Your task to perform on an android device: What's on my calendar tomorrow? Image 0: 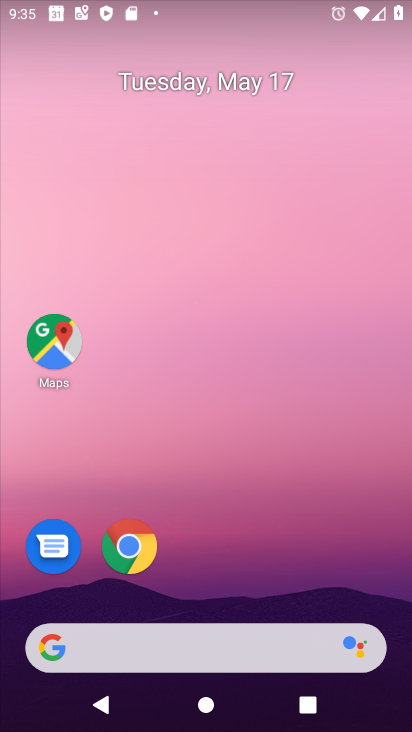
Step 0: drag from (231, 562) to (317, 285)
Your task to perform on an android device: What's on my calendar tomorrow? Image 1: 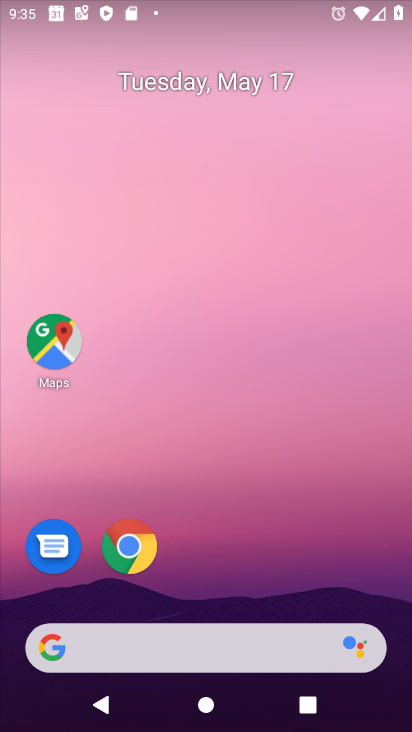
Step 1: drag from (206, 588) to (231, 182)
Your task to perform on an android device: What's on my calendar tomorrow? Image 2: 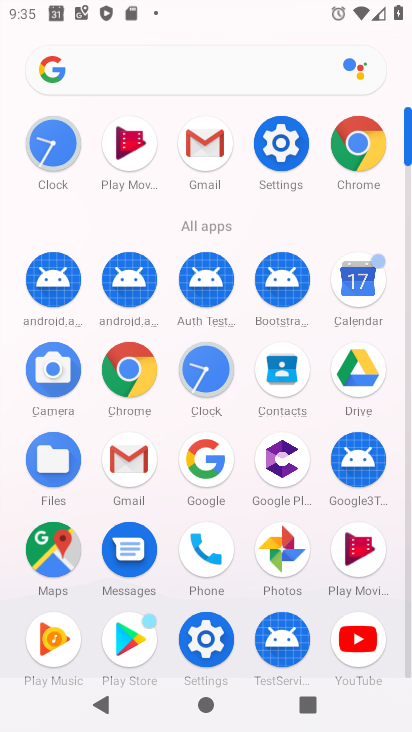
Step 2: click (350, 280)
Your task to perform on an android device: What's on my calendar tomorrow? Image 3: 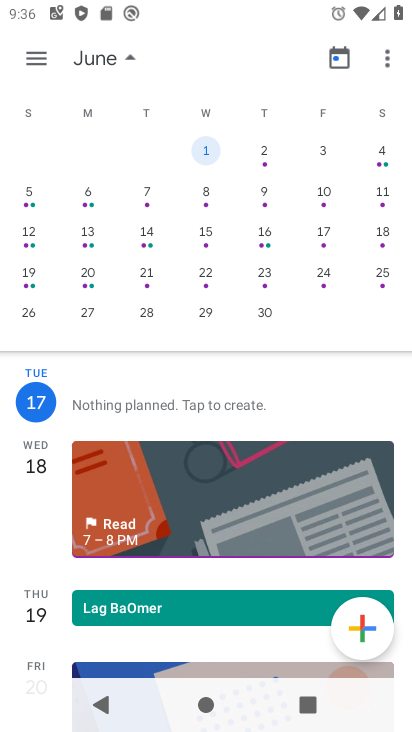
Step 3: drag from (69, 222) to (352, 201)
Your task to perform on an android device: What's on my calendar tomorrow? Image 4: 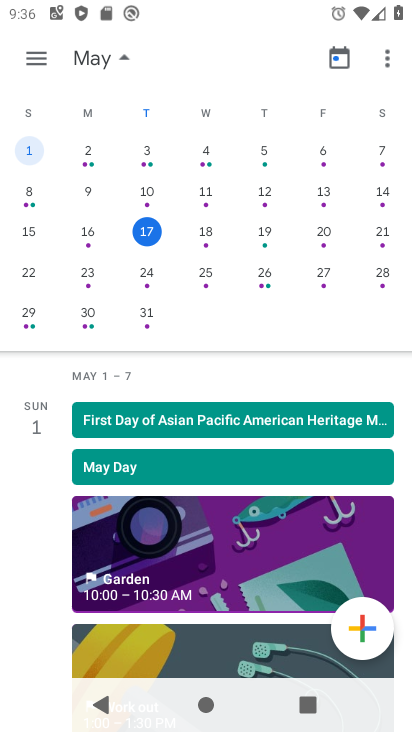
Step 4: click (197, 229)
Your task to perform on an android device: What's on my calendar tomorrow? Image 5: 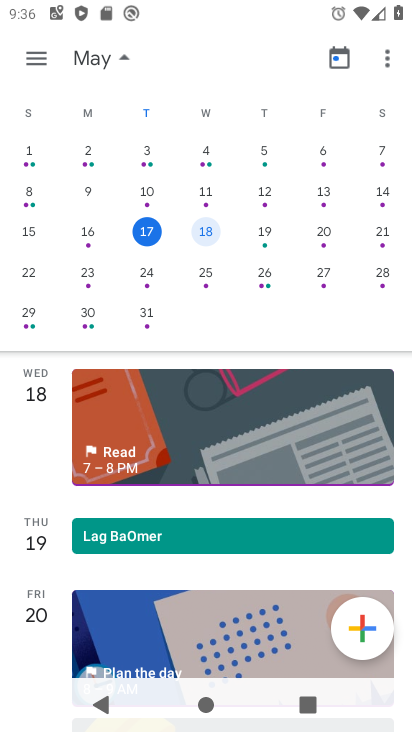
Step 5: task complete